Your task to perform on an android device: turn off airplane mode Image 0: 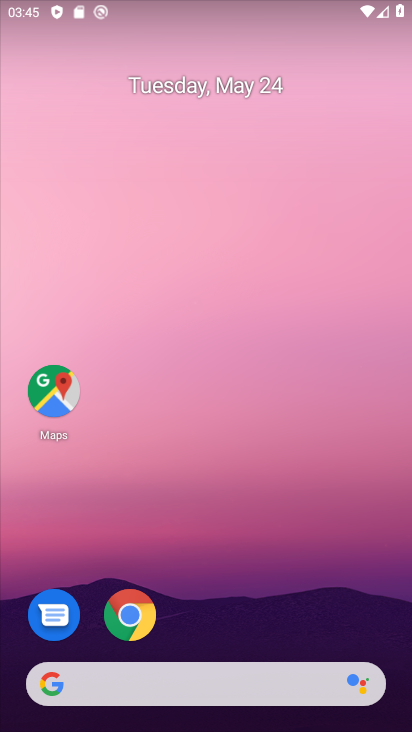
Step 0: drag from (203, 550) to (242, 53)
Your task to perform on an android device: turn off airplane mode Image 1: 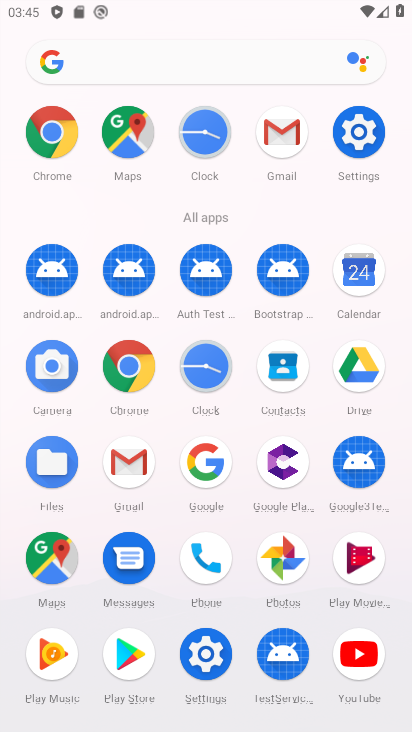
Step 1: drag from (8, 591) to (28, 258)
Your task to perform on an android device: turn off airplane mode Image 2: 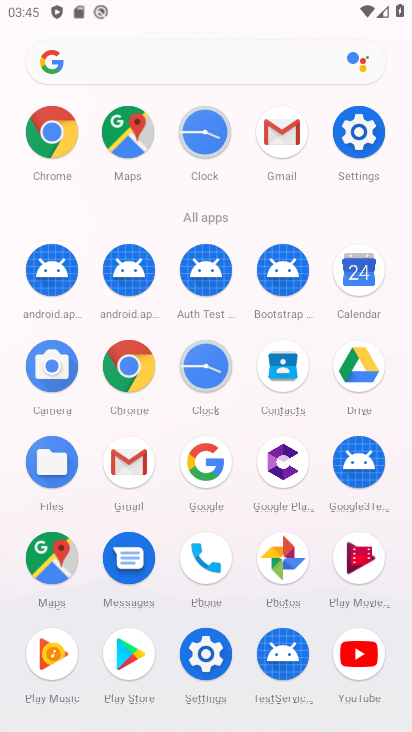
Step 2: click (201, 651)
Your task to perform on an android device: turn off airplane mode Image 3: 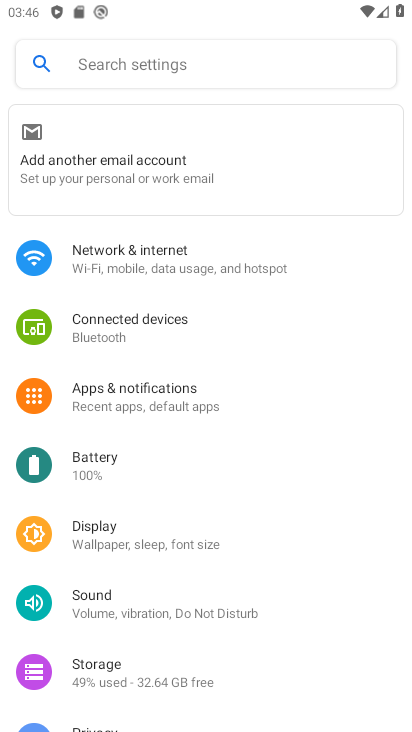
Step 3: click (210, 262)
Your task to perform on an android device: turn off airplane mode Image 4: 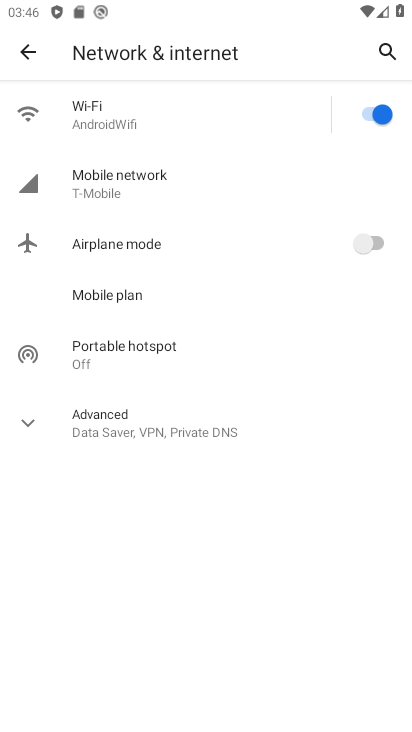
Step 4: click (45, 418)
Your task to perform on an android device: turn off airplane mode Image 5: 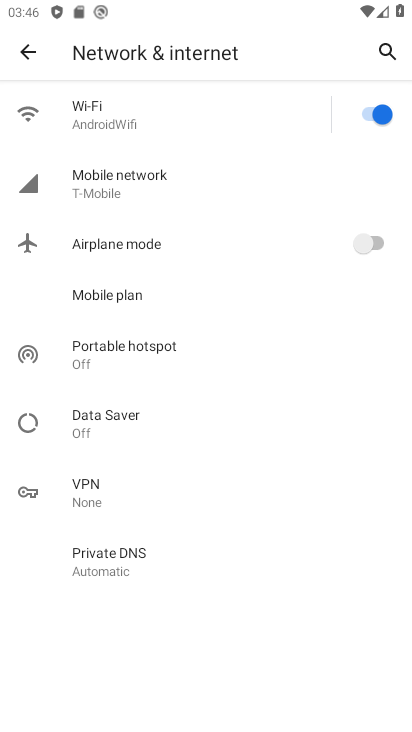
Step 5: task complete